Your task to perform on an android device: toggle airplane mode Image 0: 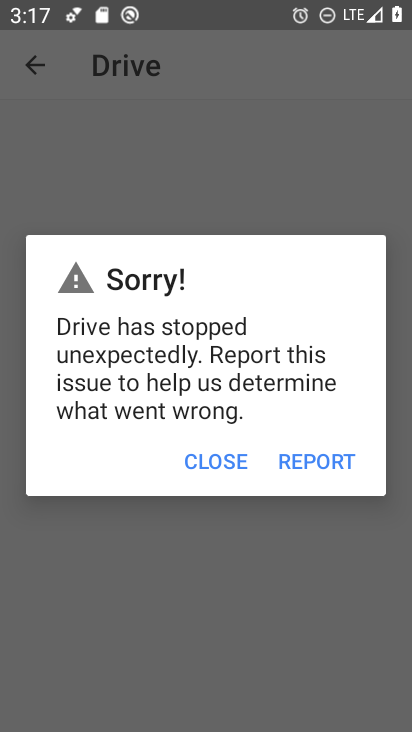
Step 0: press home button
Your task to perform on an android device: toggle airplane mode Image 1: 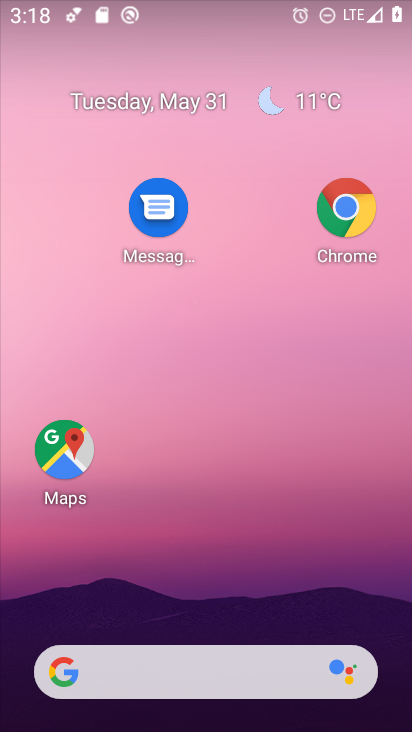
Step 1: drag from (163, 601) to (195, 156)
Your task to perform on an android device: toggle airplane mode Image 2: 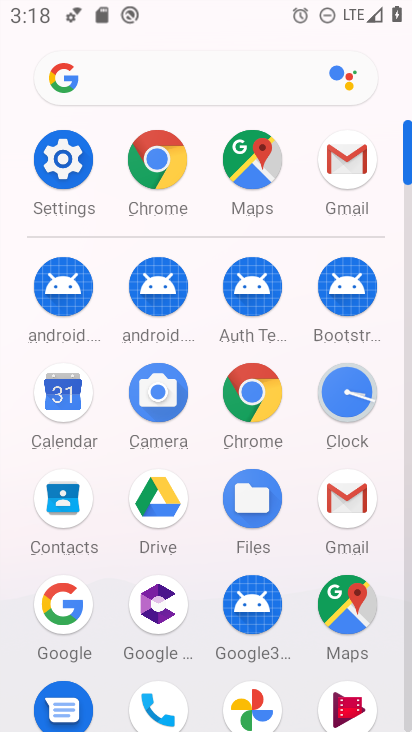
Step 2: click (53, 165)
Your task to perform on an android device: toggle airplane mode Image 3: 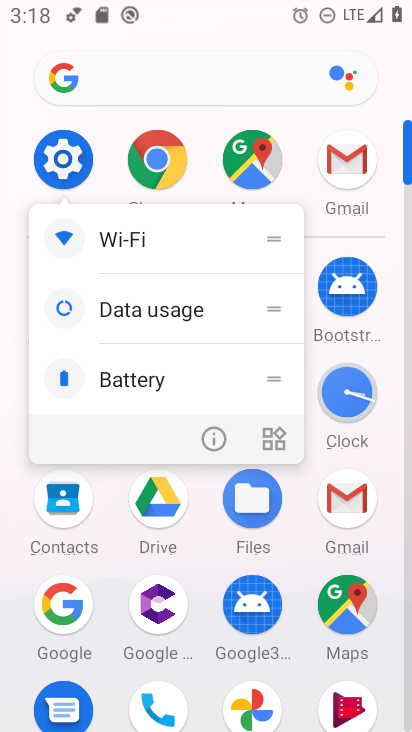
Step 3: click (216, 448)
Your task to perform on an android device: toggle airplane mode Image 4: 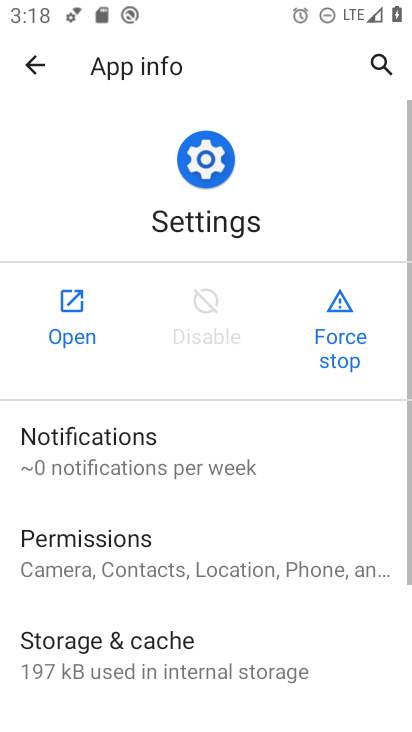
Step 4: click (73, 351)
Your task to perform on an android device: toggle airplane mode Image 5: 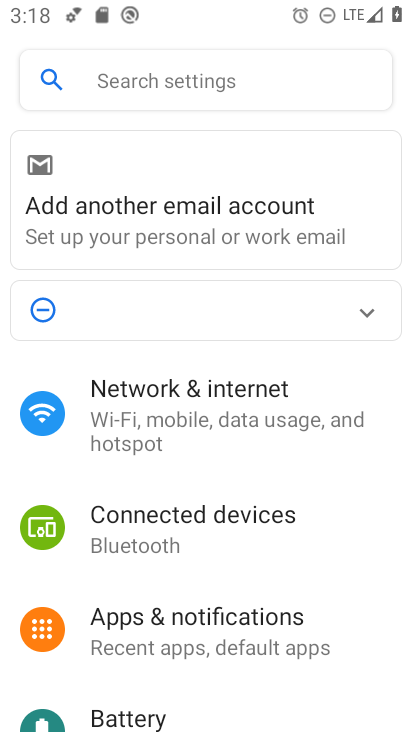
Step 5: drag from (186, 567) to (228, 212)
Your task to perform on an android device: toggle airplane mode Image 6: 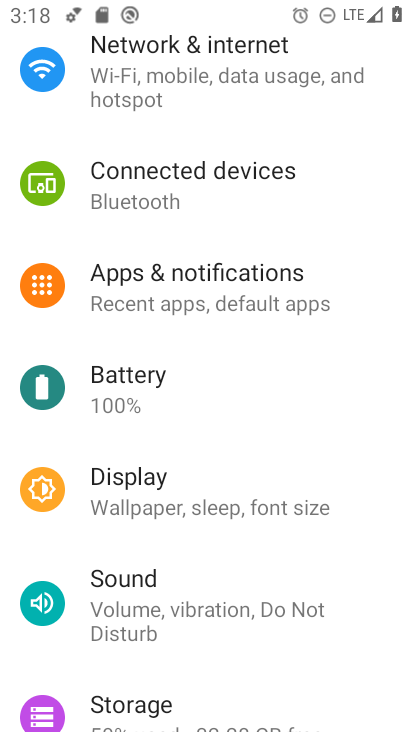
Step 6: drag from (201, 129) to (161, 558)
Your task to perform on an android device: toggle airplane mode Image 7: 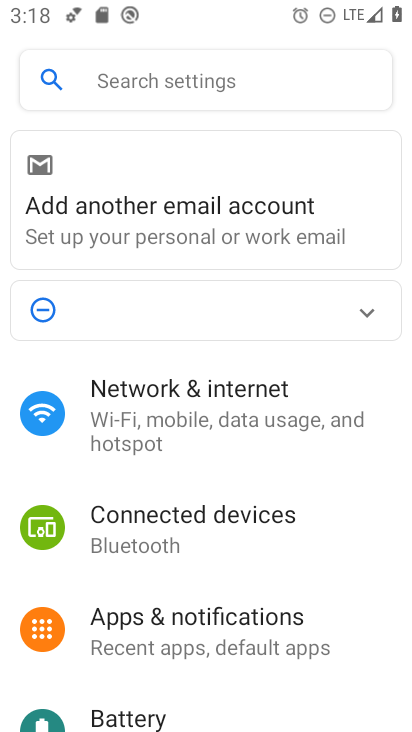
Step 7: click (157, 419)
Your task to perform on an android device: toggle airplane mode Image 8: 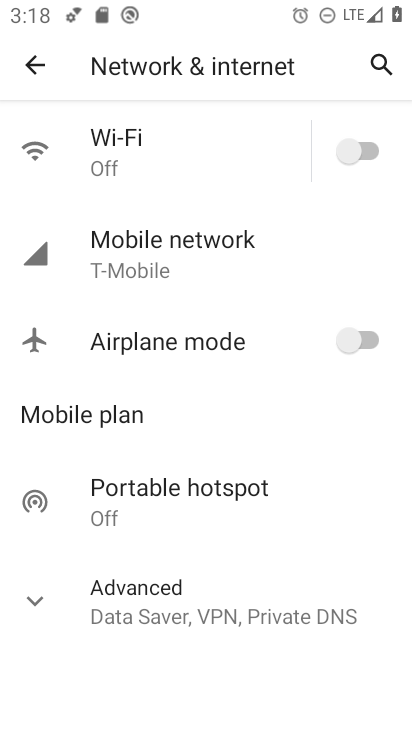
Step 8: click (164, 341)
Your task to perform on an android device: toggle airplane mode Image 9: 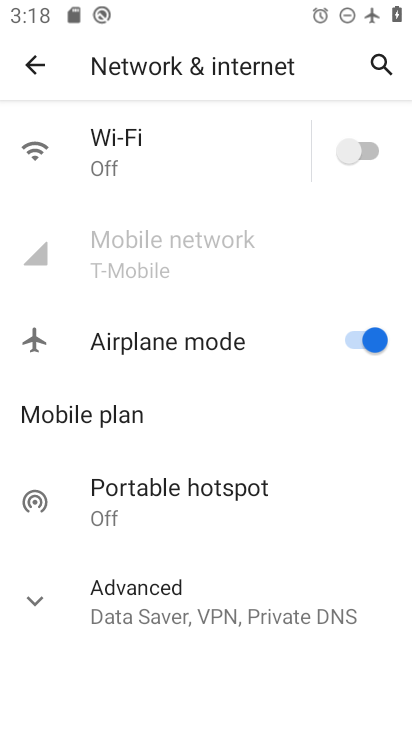
Step 9: task complete